Your task to perform on an android device: toggle javascript in the chrome app Image 0: 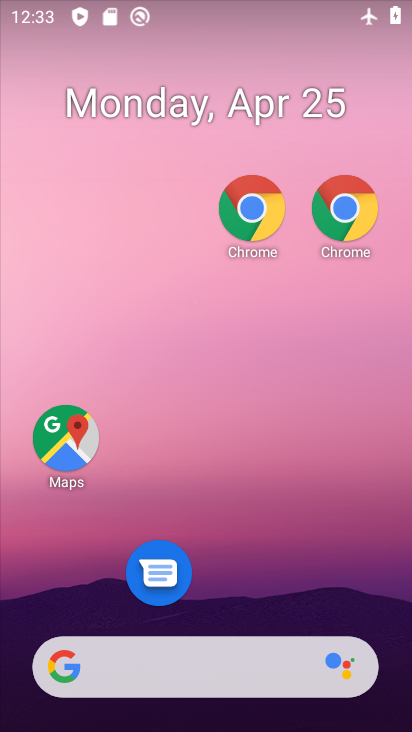
Step 0: drag from (249, 713) to (186, 76)
Your task to perform on an android device: toggle javascript in the chrome app Image 1: 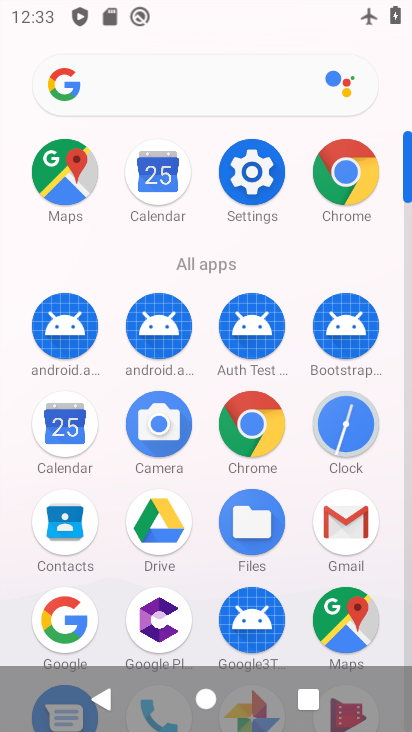
Step 1: drag from (184, 53) to (171, 0)
Your task to perform on an android device: toggle javascript in the chrome app Image 2: 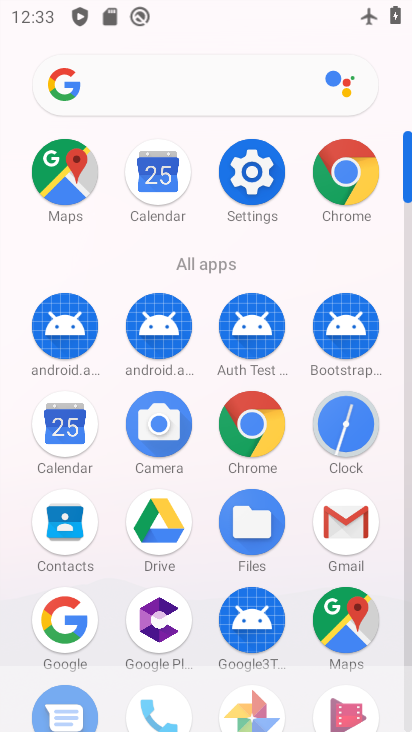
Step 2: click (339, 171)
Your task to perform on an android device: toggle javascript in the chrome app Image 3: 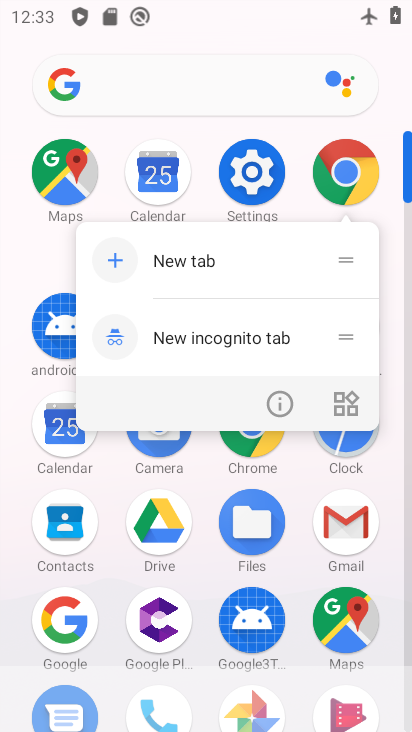
Step 3: click (338, 170)
Your task to perform on an android device: toggle javascript in the chrome app Image 4: 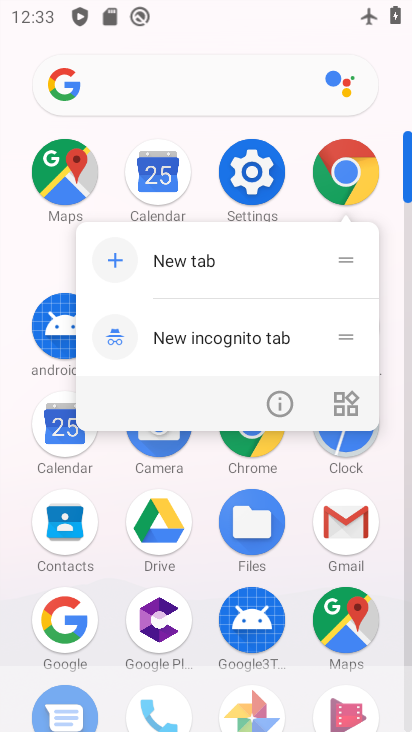
Step 4: click (338, 169)
Your task to perform on an android device: toggle javascript in the chrome app Image 5: 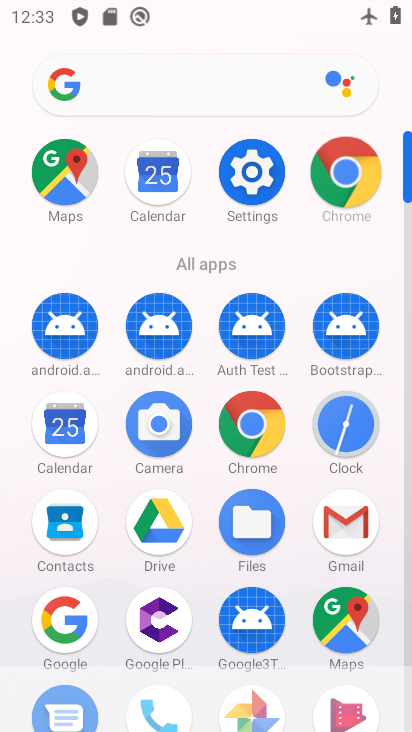
Step 5: click (338, 169)
Your task to perform on an android device: toggle javascript in the chrome app Image 6: 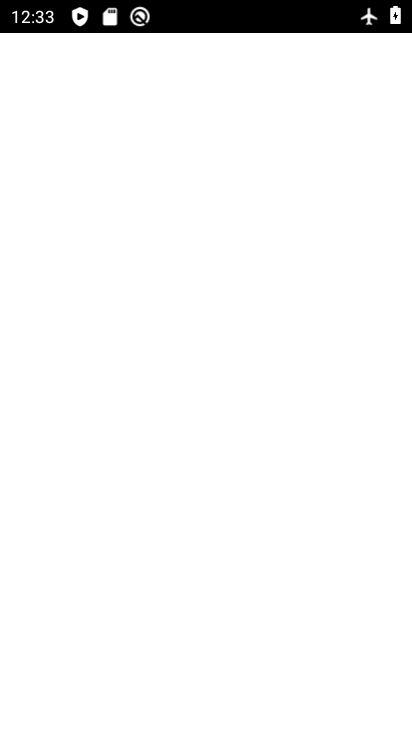
Step 6: click (337, 168)
Your task to perform on an android device: toggle javascript in the chrome app Image 7: 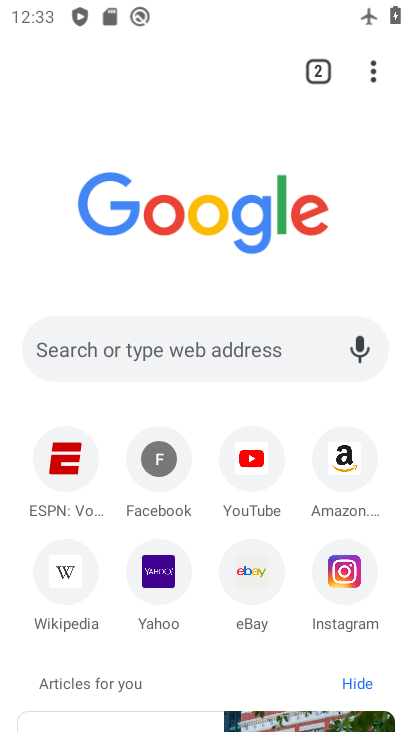
Step 7: click (337, 168)
Your task to perform on an android device: toggle javascript in the chrome app Image 8: 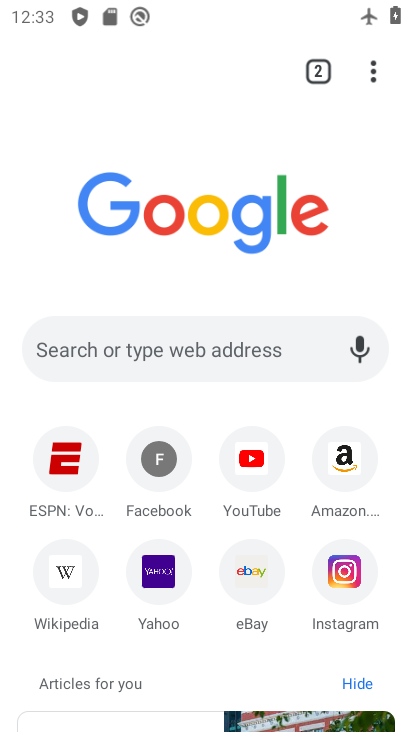
Step 8: click (335, 170)
Your task to perform on an android device: toggle javascript in the chrome app Image 9: 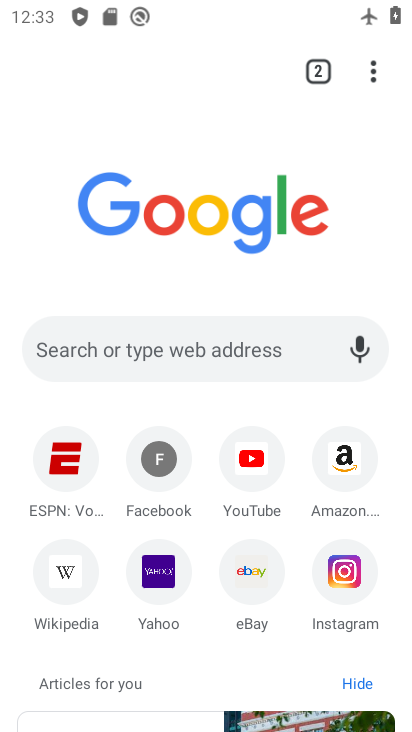
Step 9: drag from (367, 64) to (126, 605)
Your task to perform on an android device: toggle javascript in the chrome app Image 10: 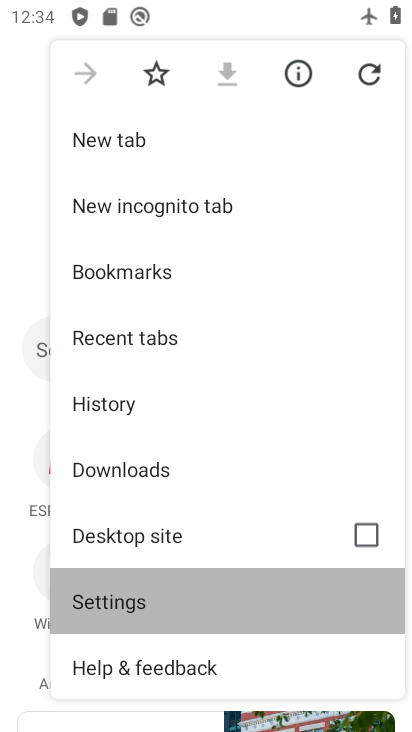
Step 10: click (126, 605)
Your task to perform on an android device: toggle javascript in the chrome app Image 11: 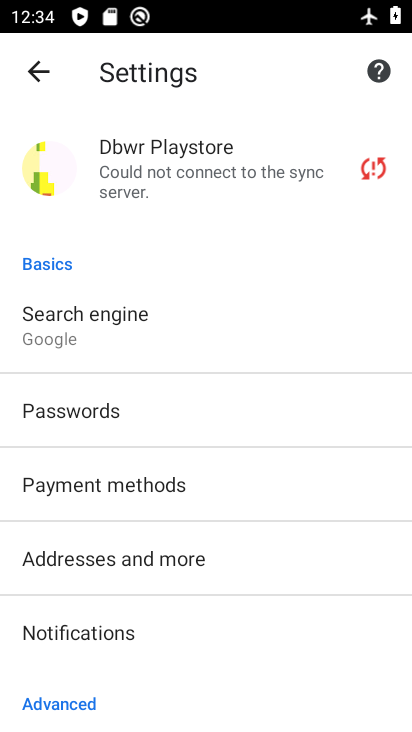
Step 11: drag from (87, 296) to (67, 150)
Your task to perform on an android device: toggle javascript in the chrome app Image 12: 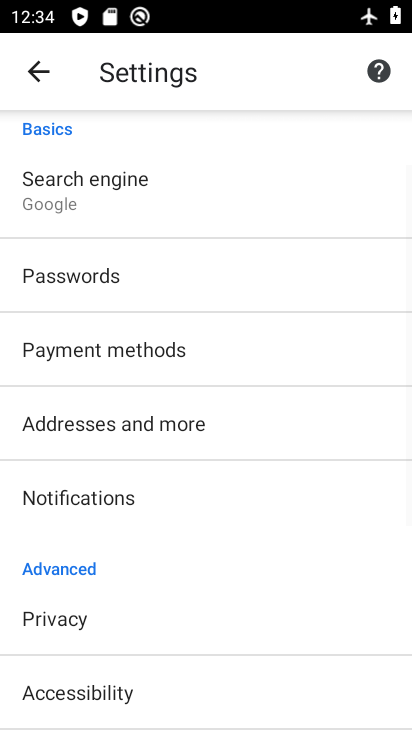
Step 12: drag from (149, 557) to (149, 65)
Your task to perform on an android device: toggle javascript in the chrome app Image 13: 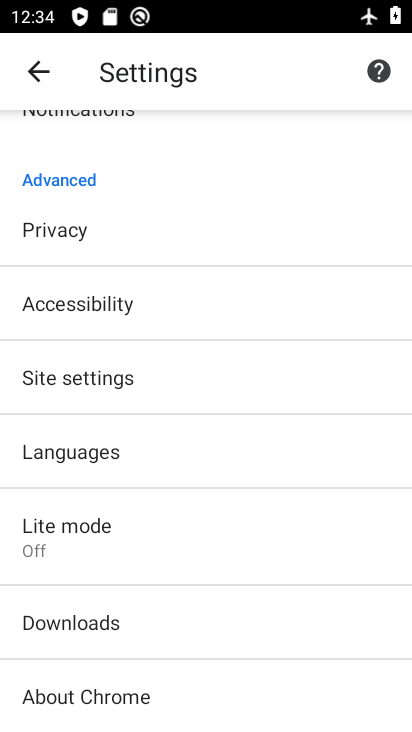
Step 13: click (70, 376)
Your task to perform on an android device: toggle javascript in the chrome app Image 14: 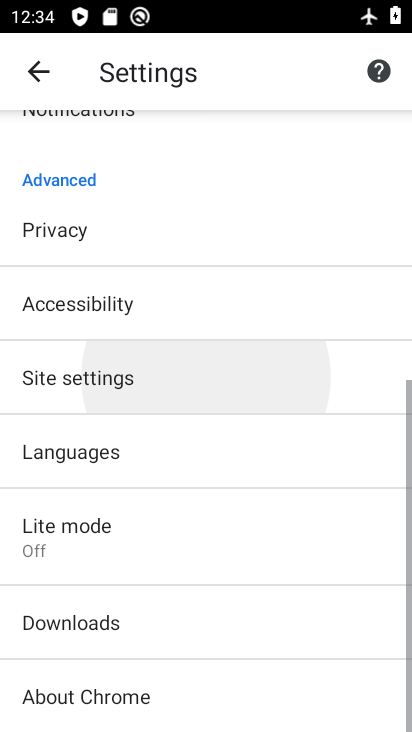
Step 14: click (70, 376)
Your task to perform on an android device: toggle javascript in the chrome app Image 15: 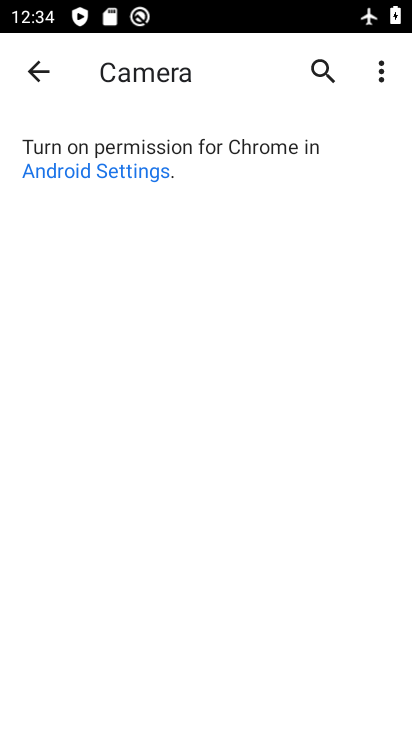
Step 15: click (30, 72)
Your task to perform on an android device: toggle javascript in the chrome app Image 16: 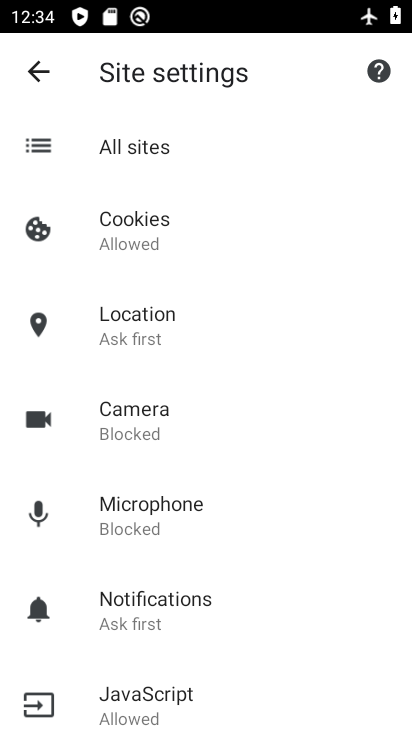
Step 16: drag from (154, 599) to (181, 146)
Your task to perform on an android device: toggle javascript in the chrome app Image 17: 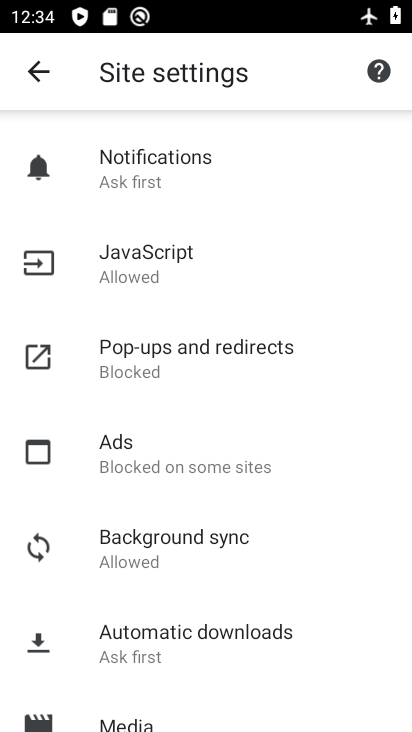
Step 17: click (131, 266)
Your task to perform on an android device: toggle javascript in the chrome app Image 18: 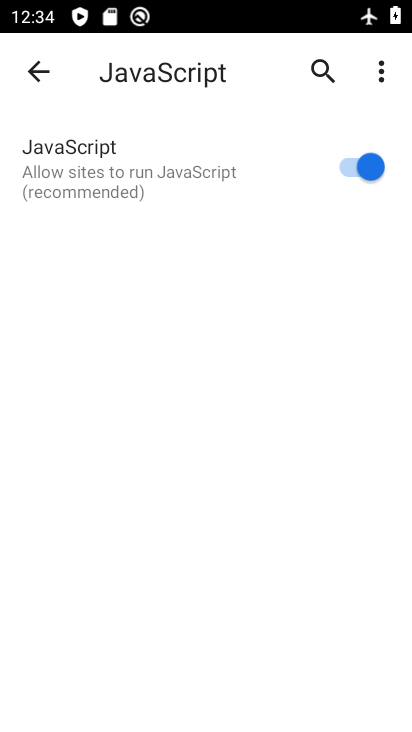
Step 18: task complete